Your task to perform on an android device: uninstall "Expedia: Hotels, Flights & Car" Image 0: 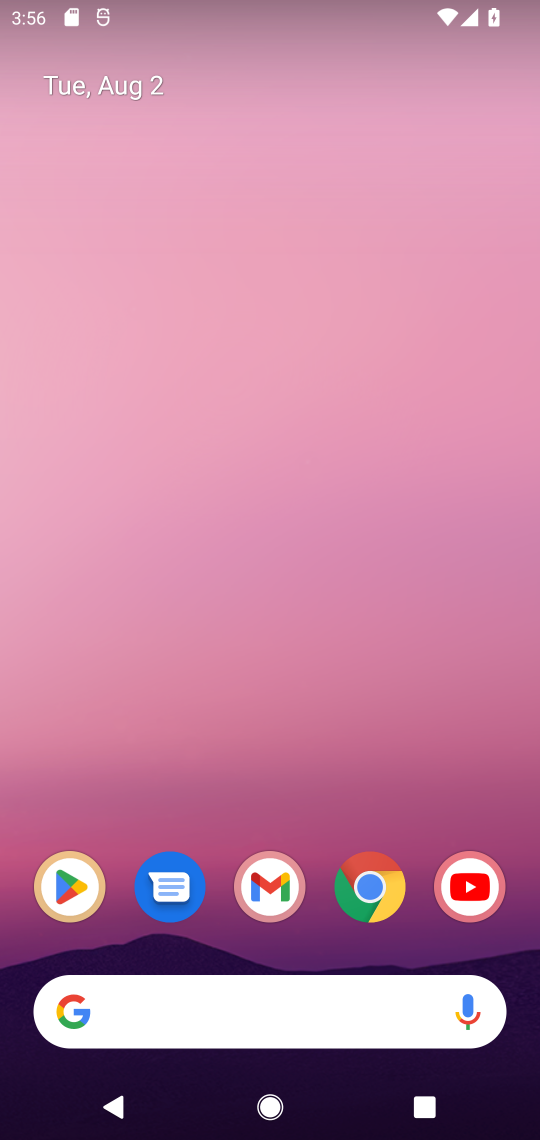
Step 0: click (69, 891)
Your task to perform on an android device: uninstall "Expedia: Hotels, Flights & Car" Image 1: 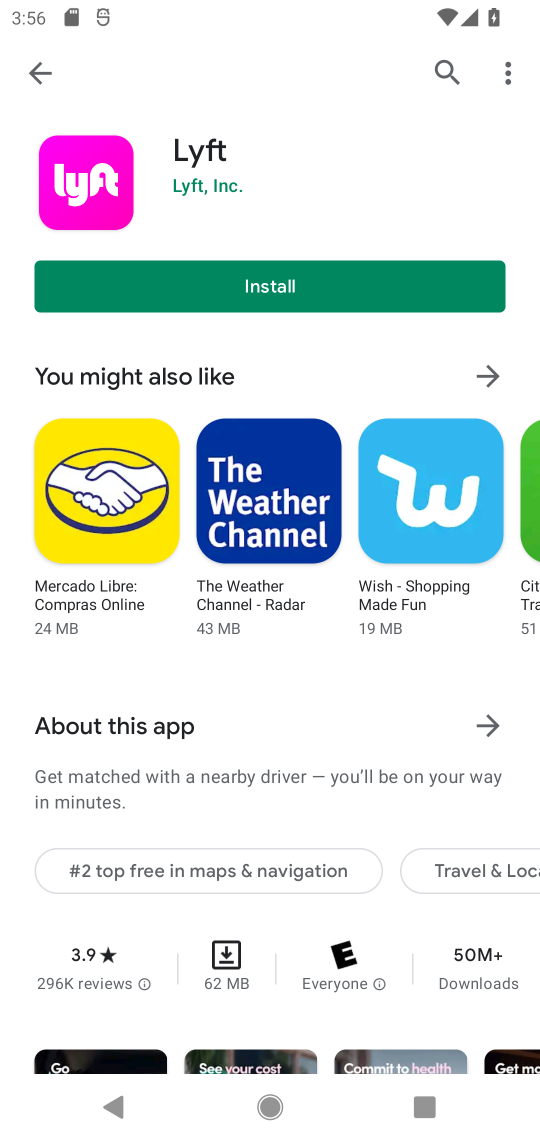
Step 1: click (33, 65)
Your task to perform on an android device: uninstall "Expedia: Hotels, Flights & Car" Image 2: 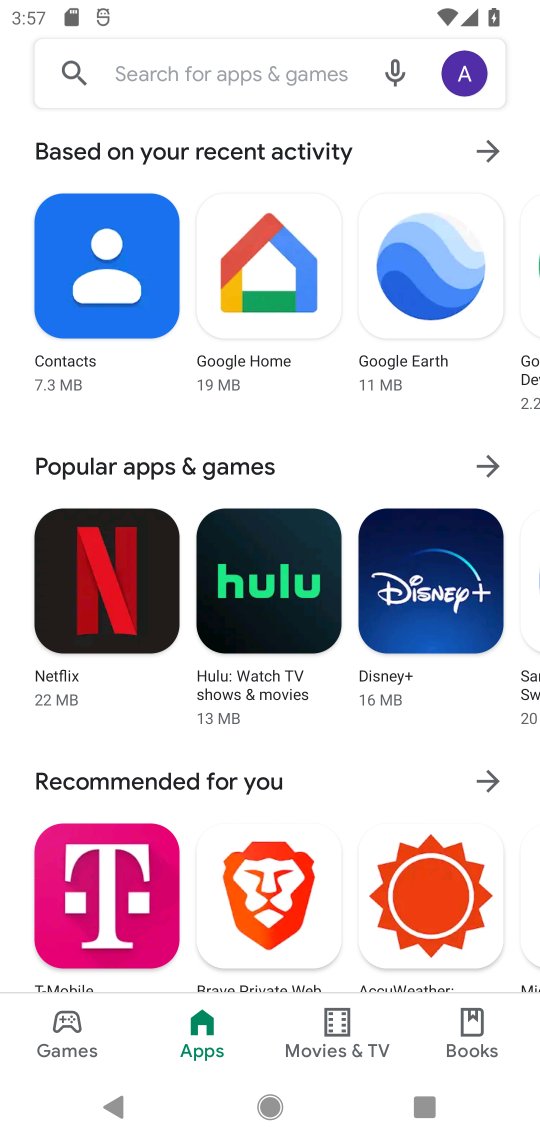
Step 2: click (177, 75)
Your task to perform on an android device: uninstall "Expedia: Hotels, Flights & Car" Image 3: 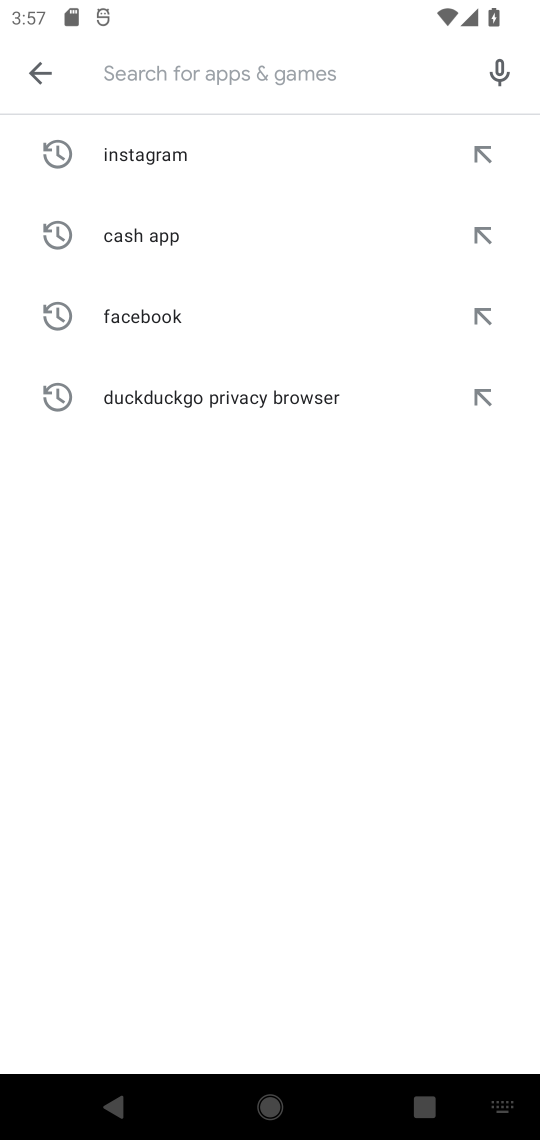
Step 3: type "Expedia: Hotels, Flights & Car"
Your task to perform on an android device: uninstall "Expedia: Hotels, Flights & Car" Image 4: 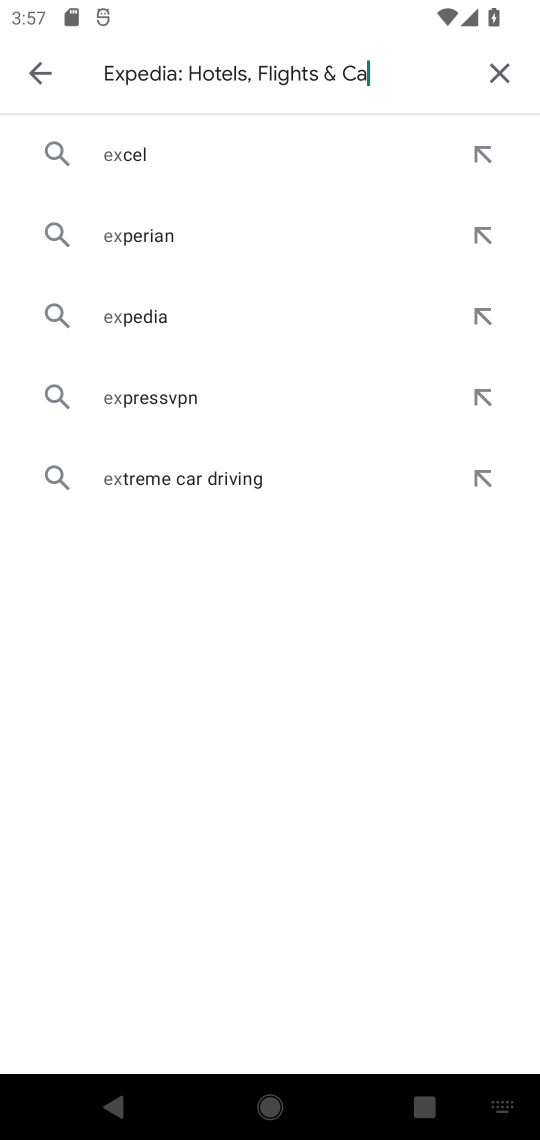
Step 4: type ""
Your task to perform on an android device: uninstall "Expedia: Hotels, Flights & Car" Image 5: 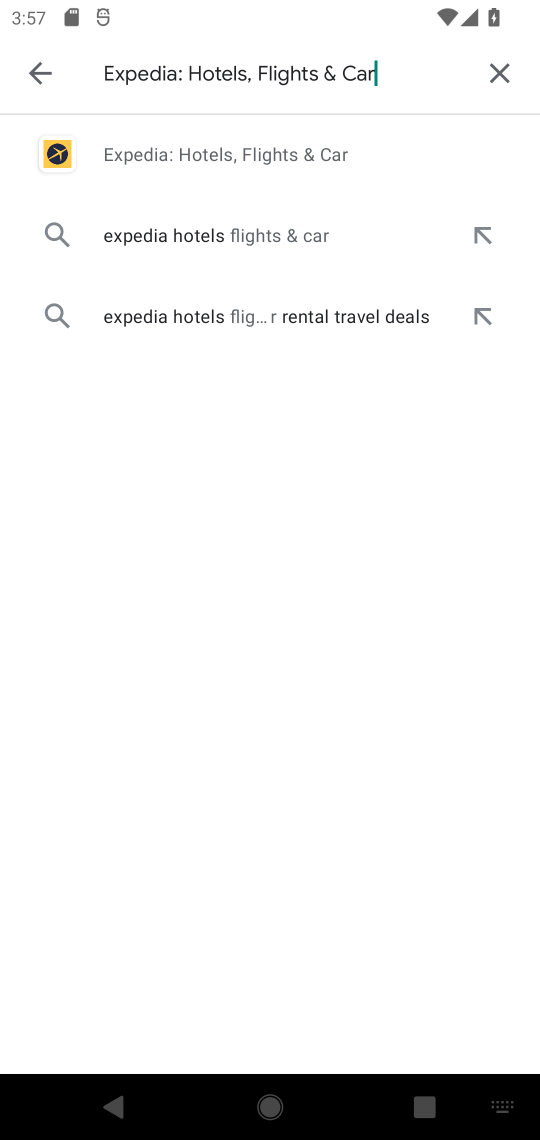
Step 5: click (235, 146)
Your task to perform on an android device: uninstall "Expedia: Hotels, Flights & Car" Image 6: 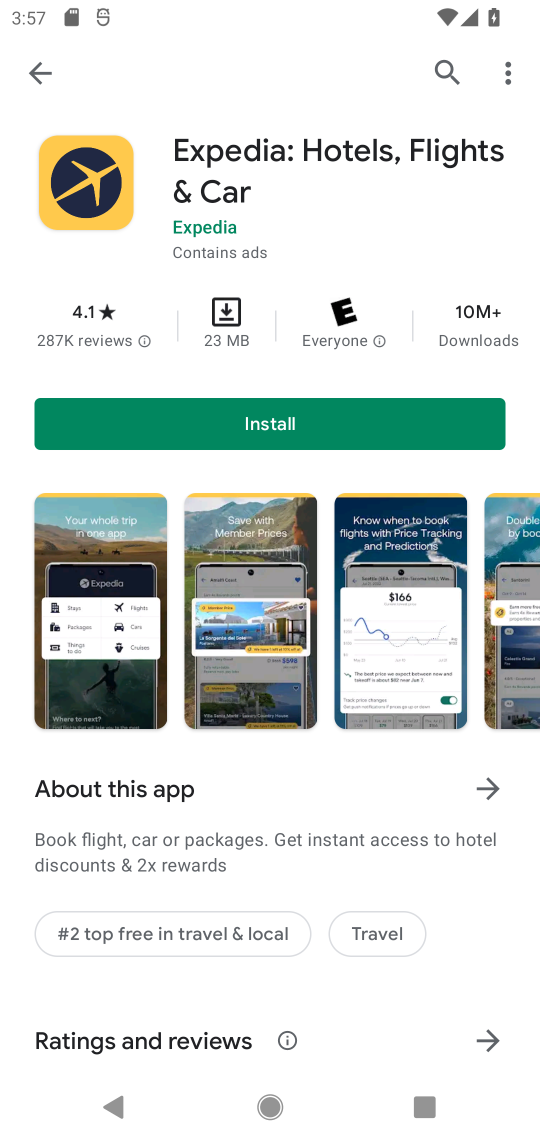
Step 6: task complete